Your task to perform on an android device: install app "Venmo" Image 0: 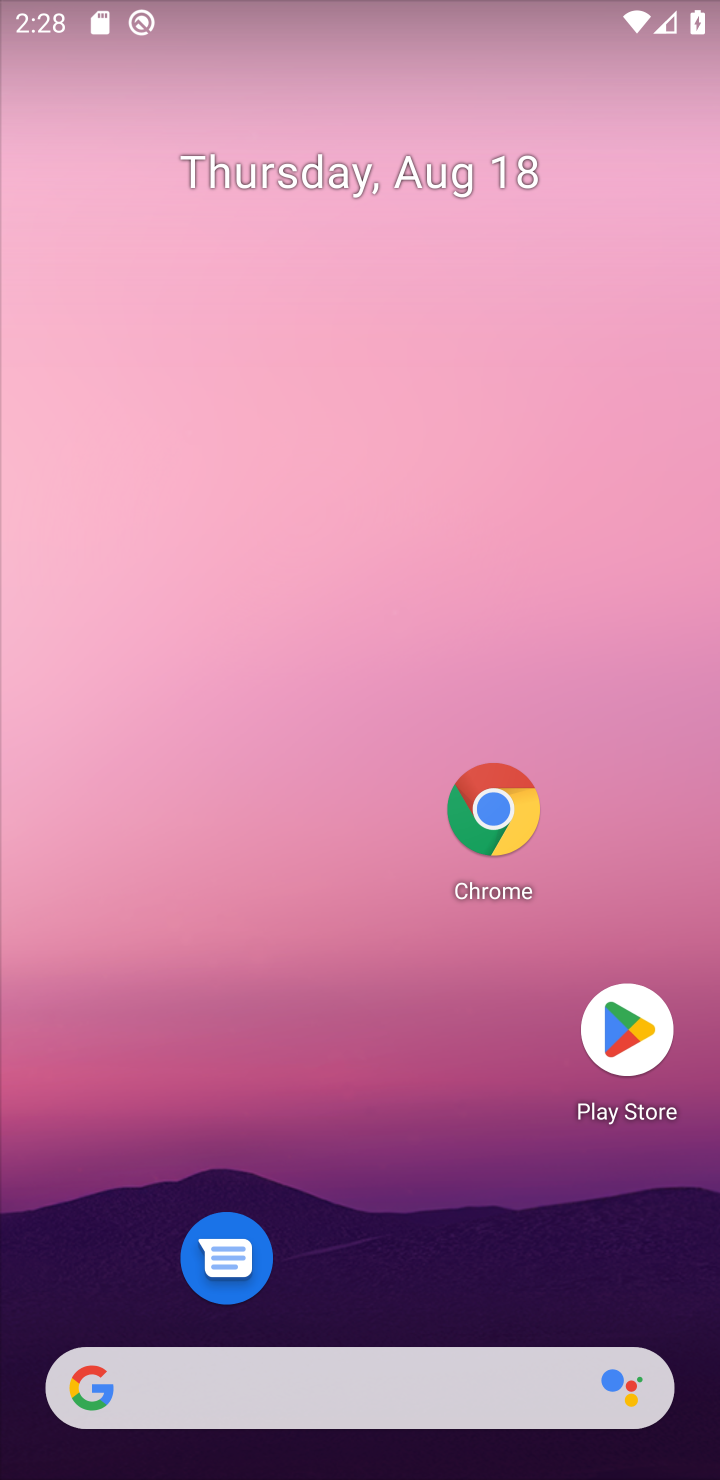
Step 0: drag from (356, 1372) to (336, 402)
Your task to perform on an android device: install app "Venmo" Image 1: 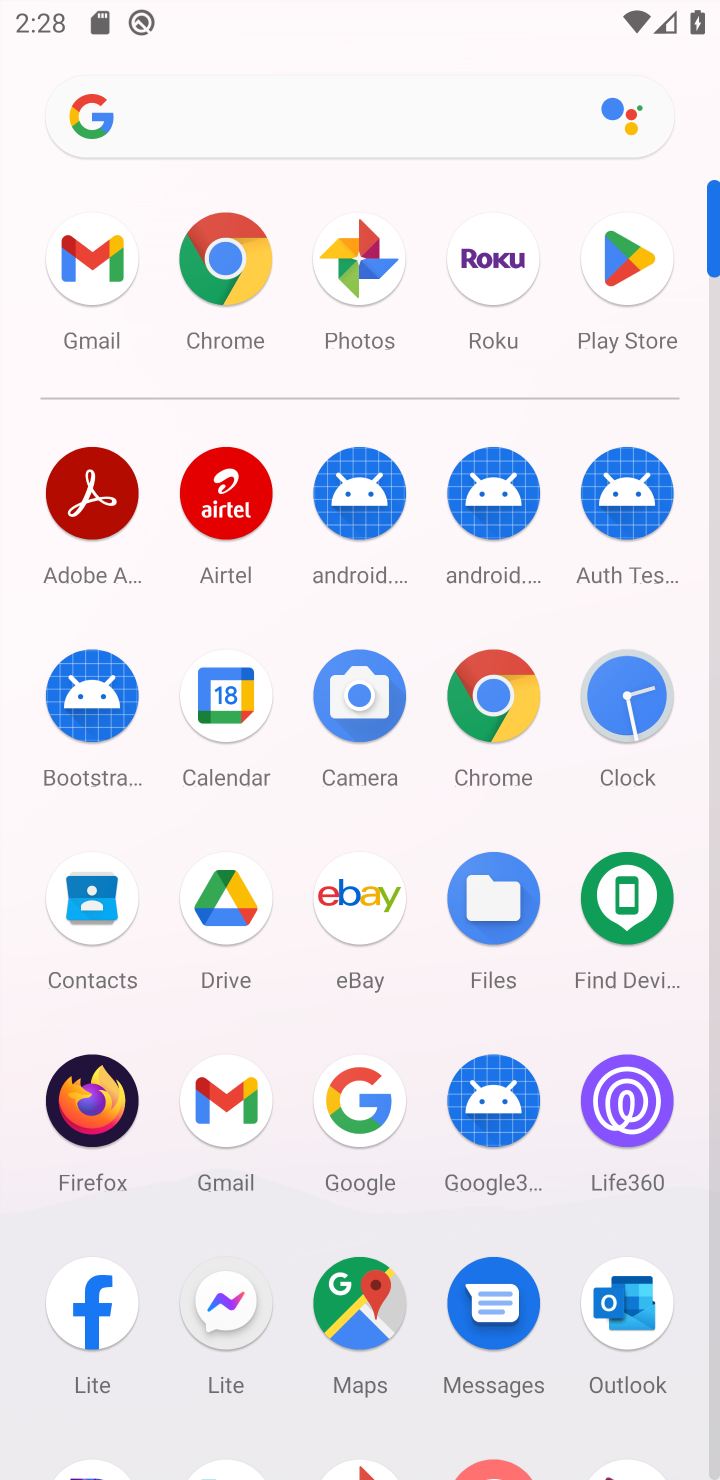
Step 1: click (634, 254)
Your task to perform on an android device: install app "Venmo" Image 2: 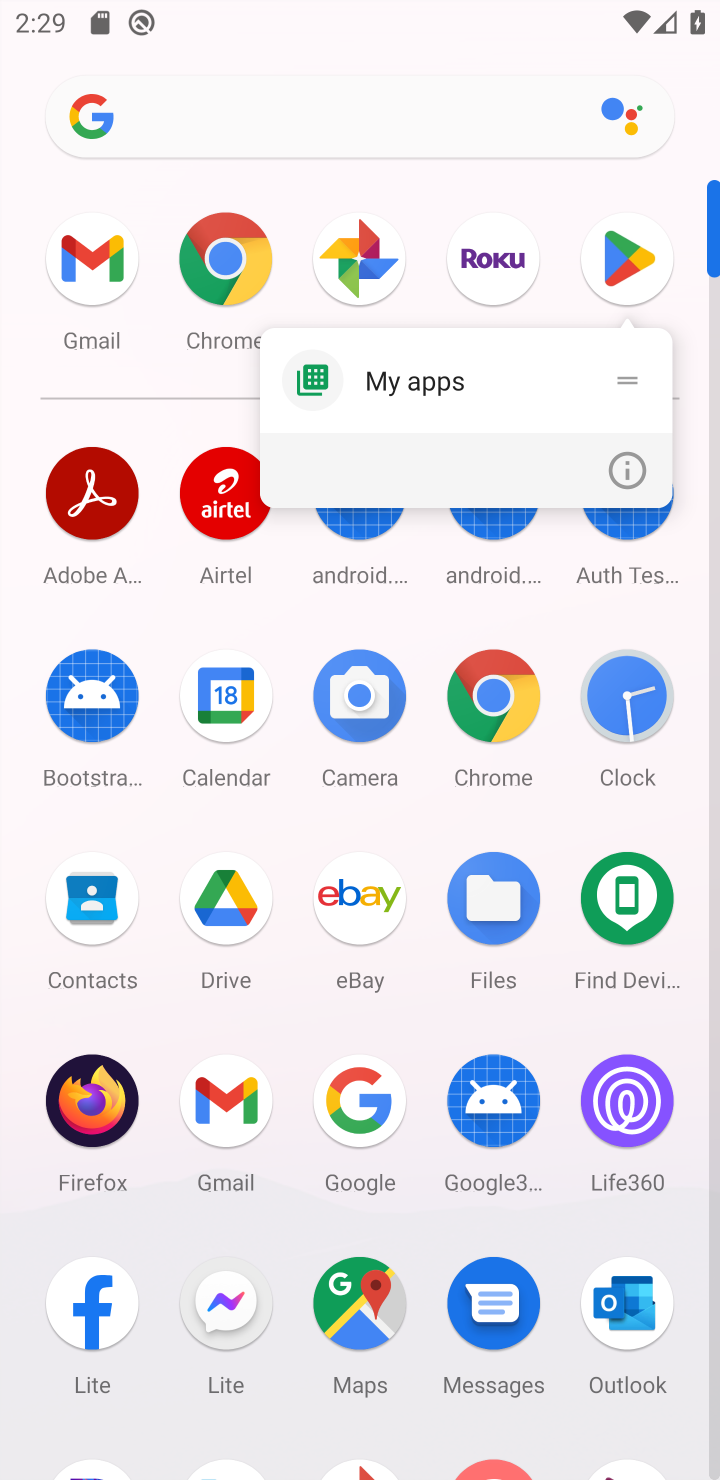
Step 2: click (608, 258)
Your task to perform on an android device: install app "Venmo" Image 3: 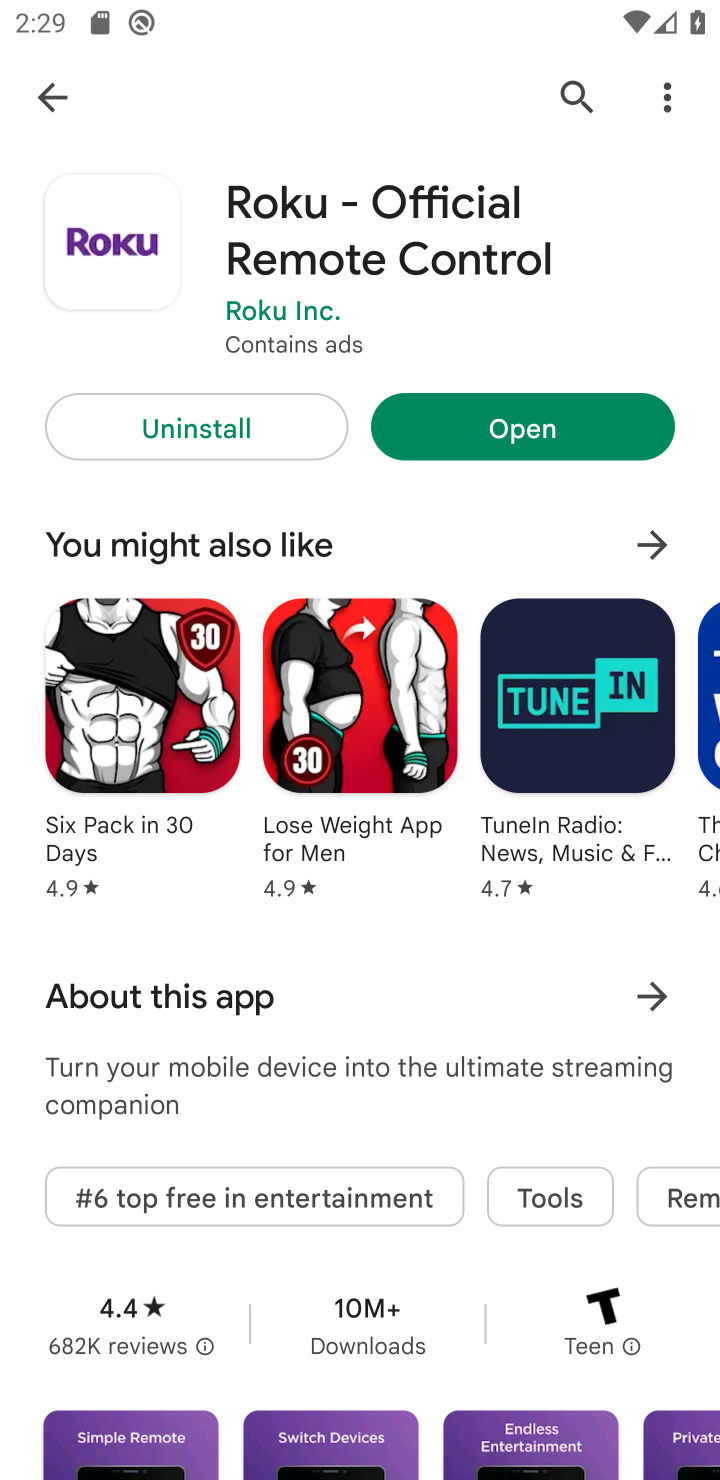
Step 3: click (21, 90)
Your task to perform on an android device: install app "Venmo" Image 4: 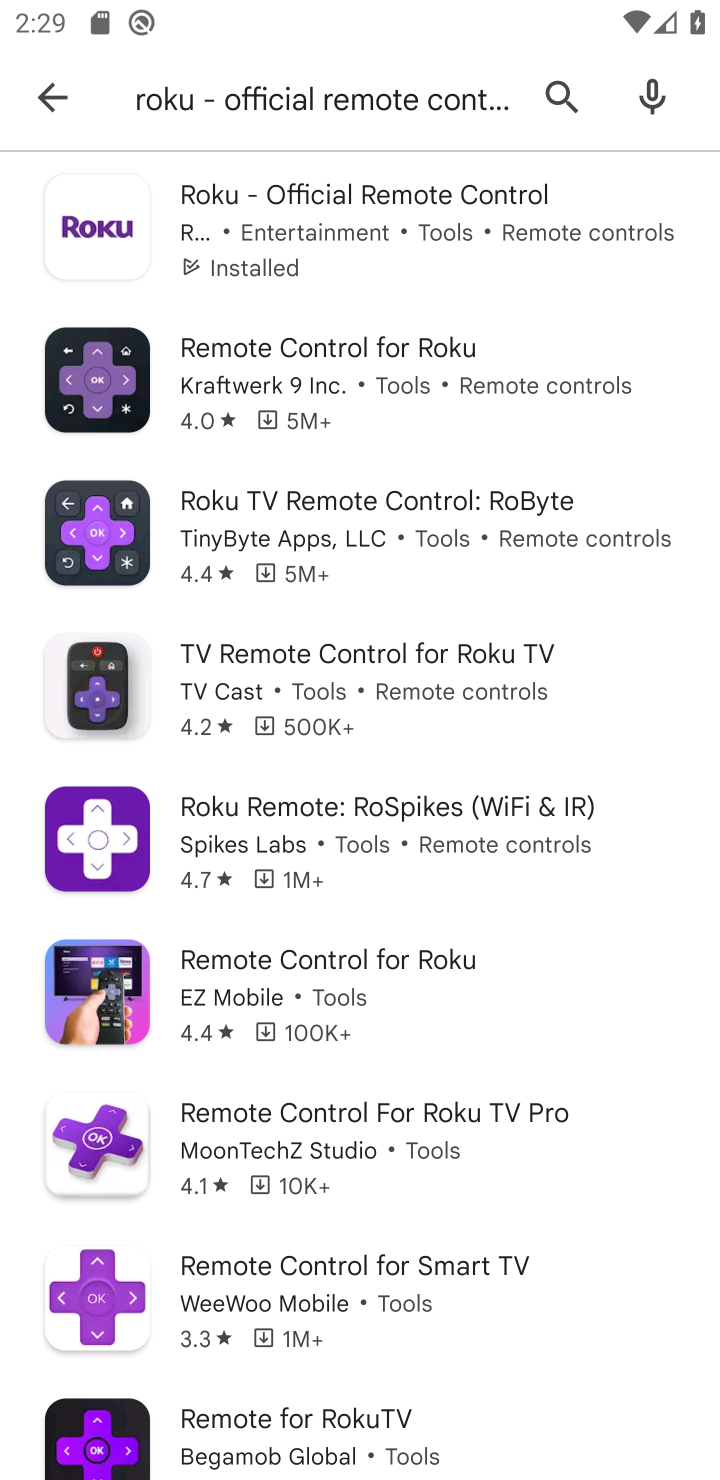
Step 4: click (45, 71)
Your task to perform on an android device: install app "Venmo" Image 5: 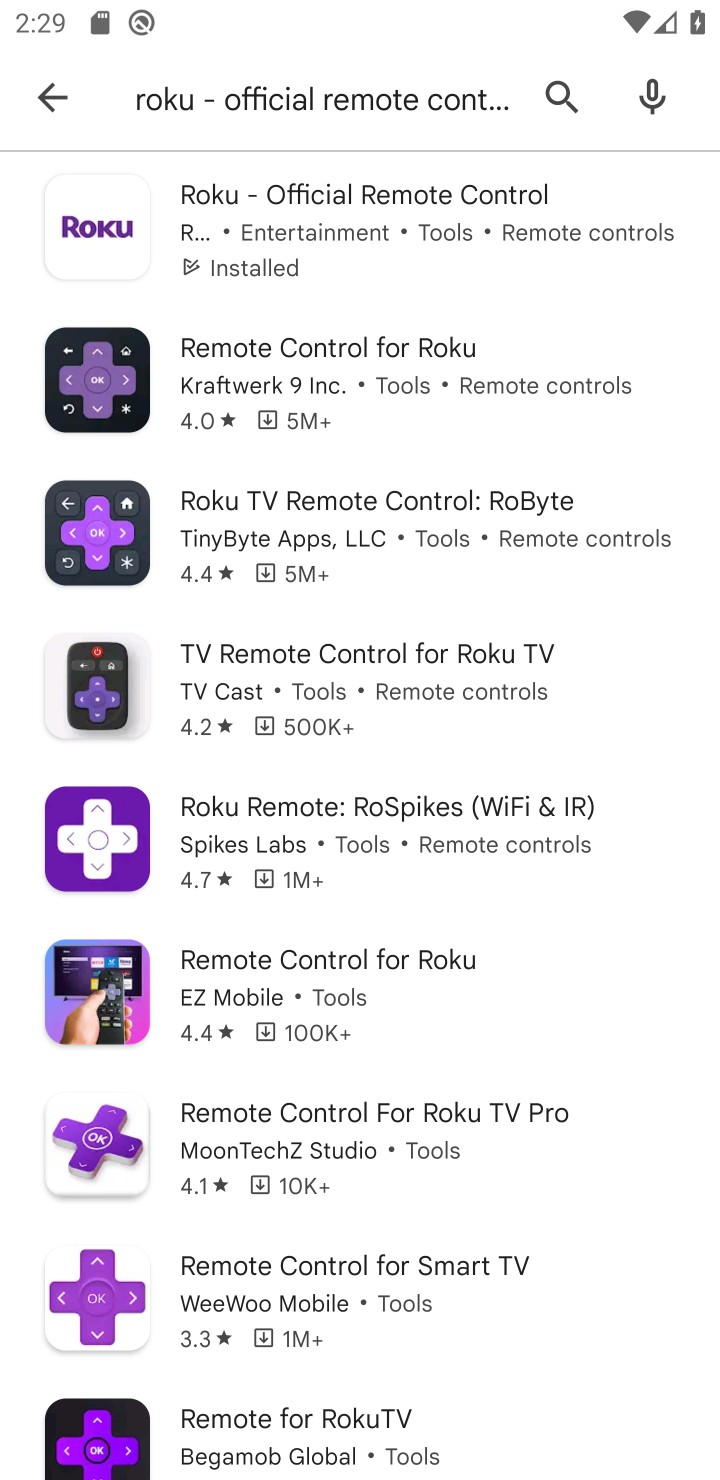
Step 5: click (65, 95)
Your task to perform on an android device: install app "Venmo" Image 6: 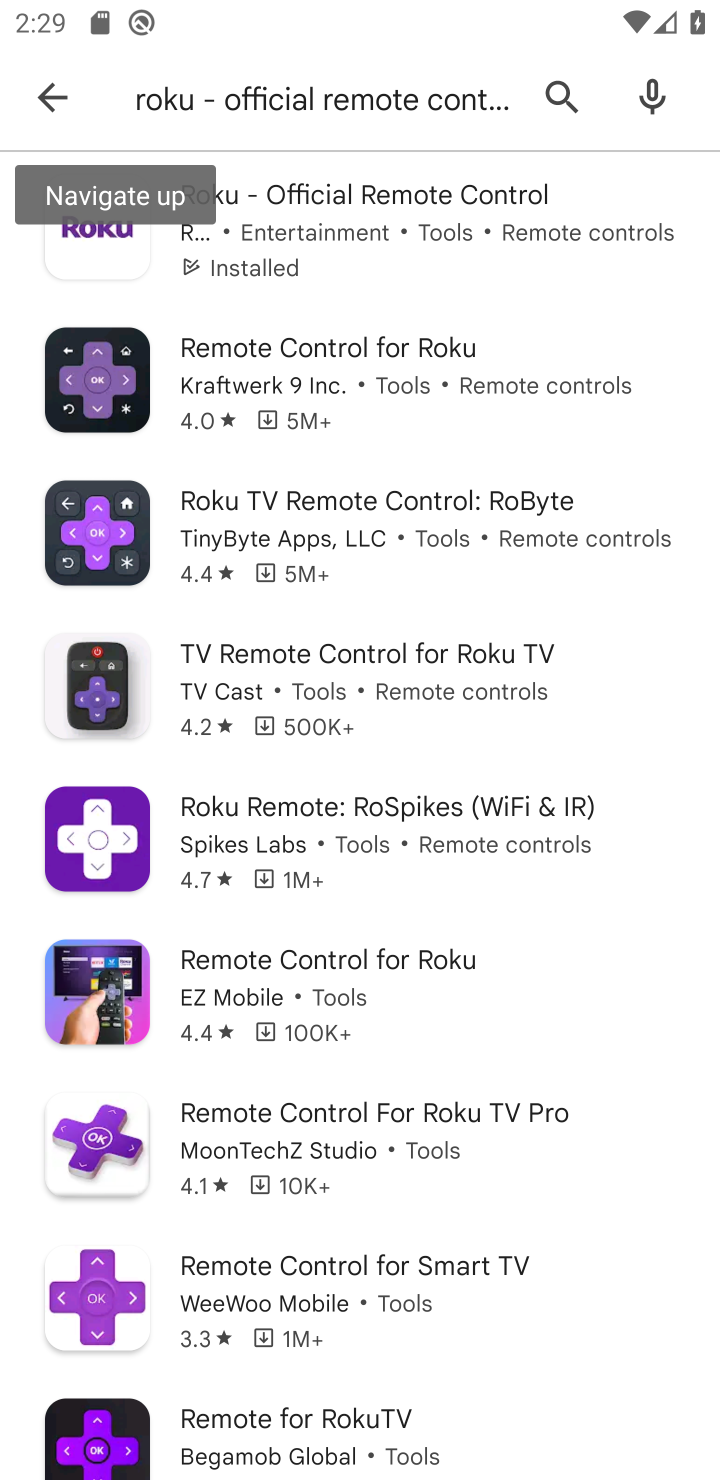
Step 6: click (65, 95)
Your task to perform on an android device: install app "Venmo" Image 7: 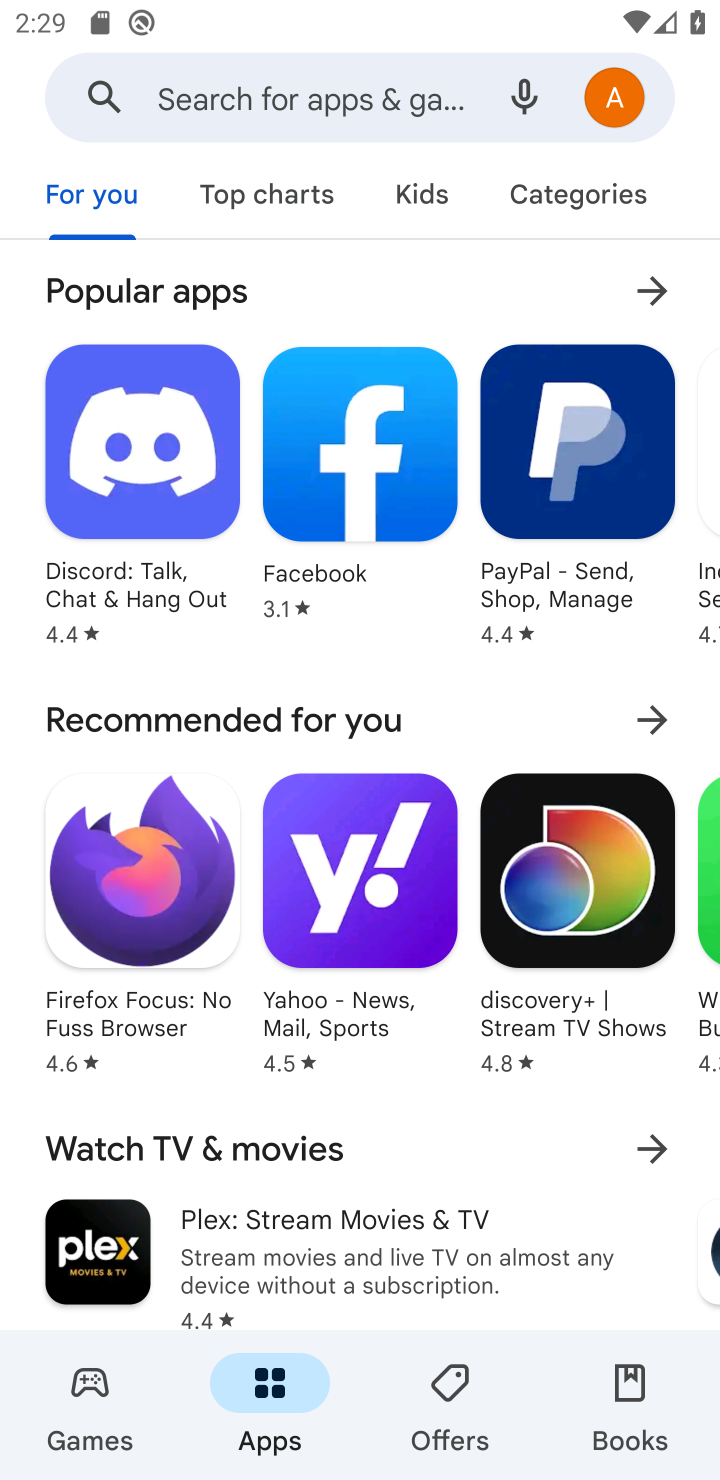
Step 7: click (309, 73)
Your task to perform on an android device: install app "Venmo" Image 8: 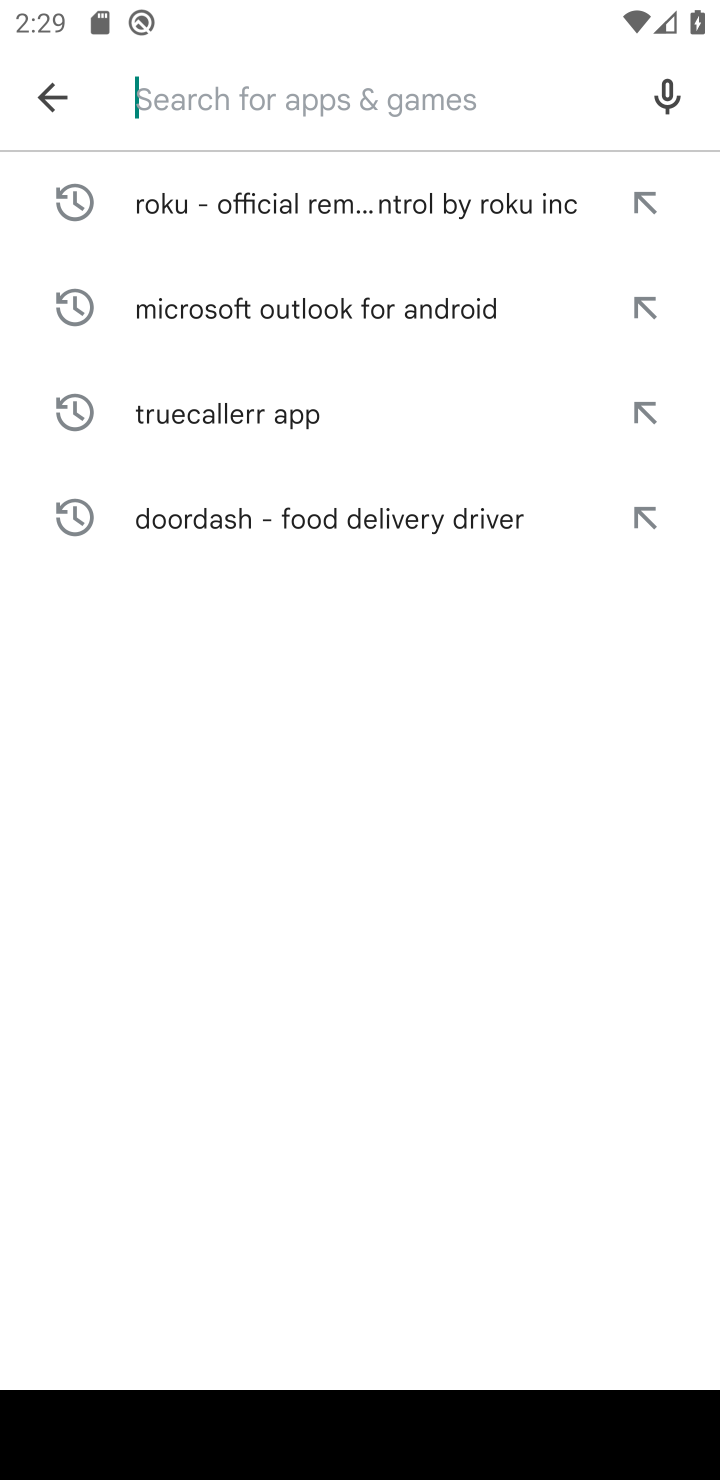
Step 8: type "Venmo "
Your task to perform on an android device: install app "Venmo" Image 9: 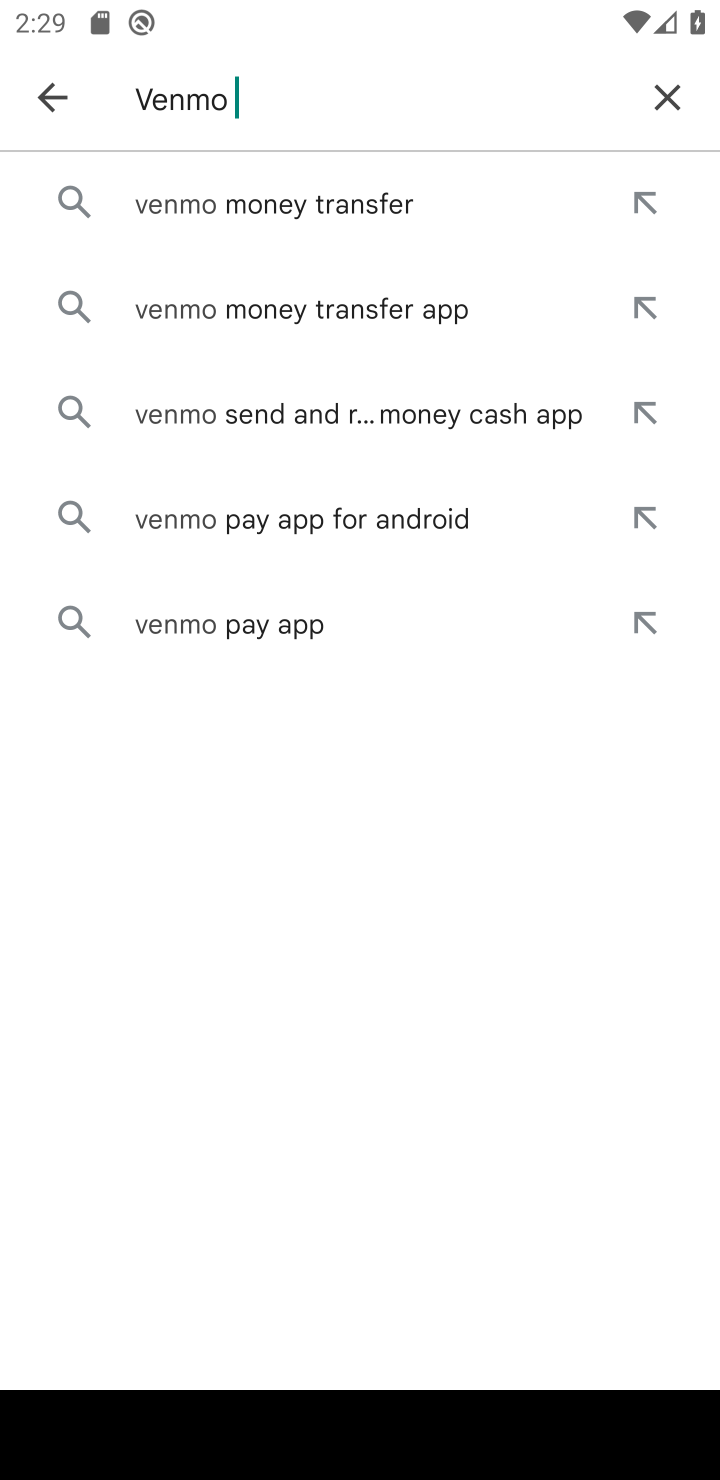
Step 9: click (254, 635)
Your task to perform on an android device: install app "Venmo" Image 10: 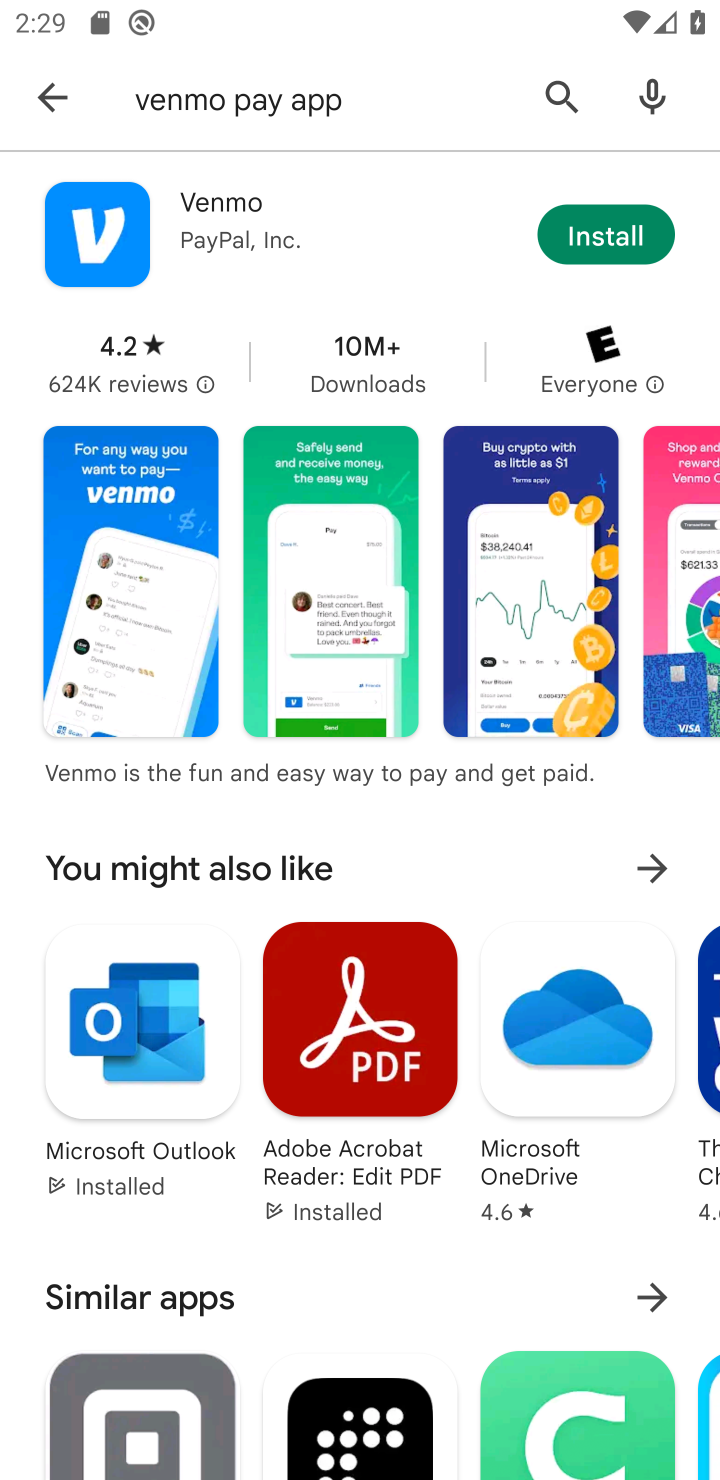
Step 10: click (615, 215)
Your task to perform on an android device: install app "Venmo" Image 11: 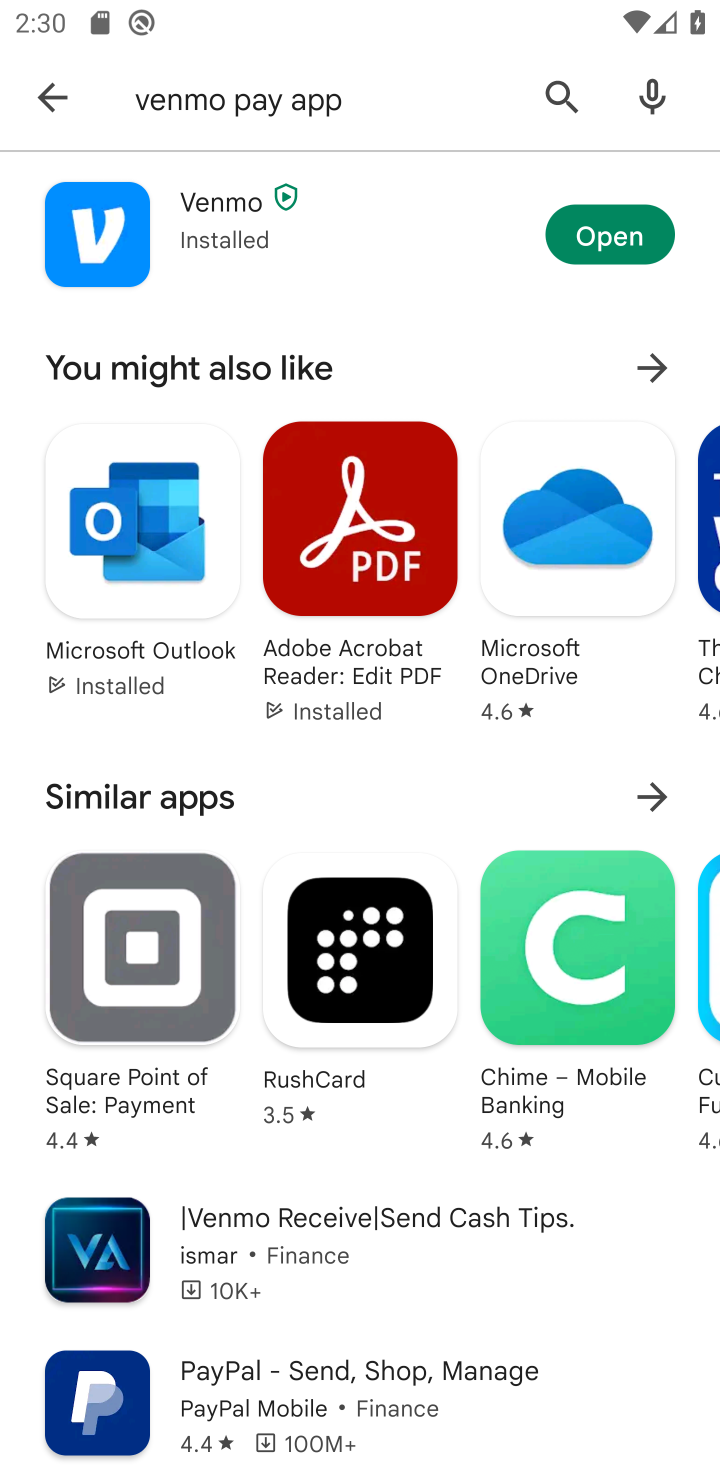
Step 11: click (615, 204)
Your task to perform on an android device: install app "Venmo" Image 12: 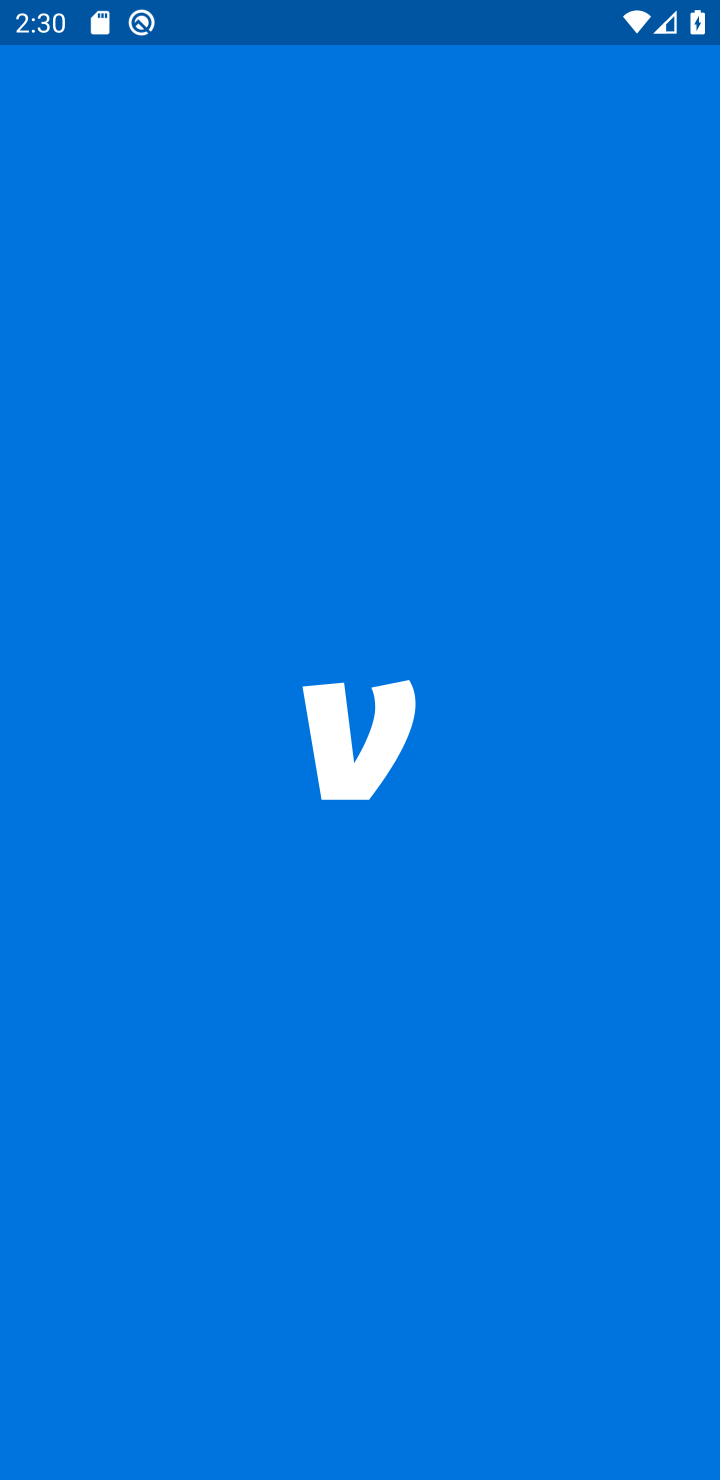
Step 12: task complete